Your task to perform on an android device: Show the shopping cart on bestbuy. Search for "razer blade" on bestbuy, select the first entry, add it to the cart, then select checkout. Image 0: 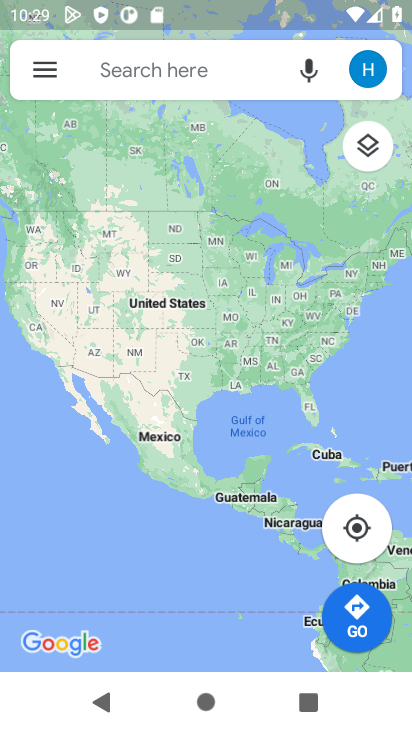
Step 0: press home button
Your task to perform on an android device: Show the shopping cart on bestbuy. Search for "razer blade" on bestbuy, select the first entry, add it to the cart, then select checkout. Image 1: 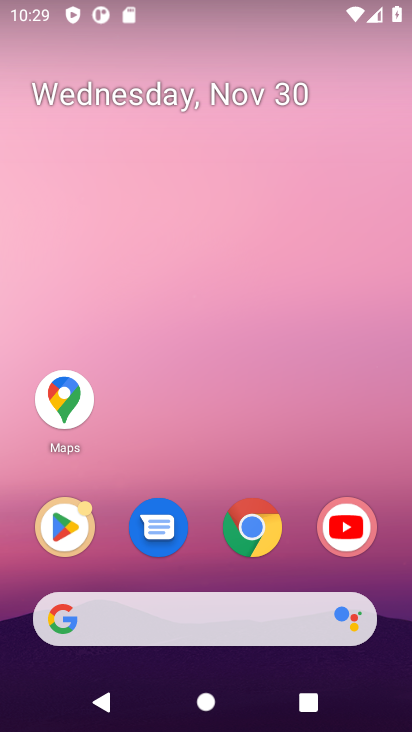
Step 1: click (247, 540)
Your task to perform on an android device: Show the shopping cart on bestbuy. Search for "razer blade" on bestbuy, select the first entry, add it to the cart, then select checkout. Image 2: 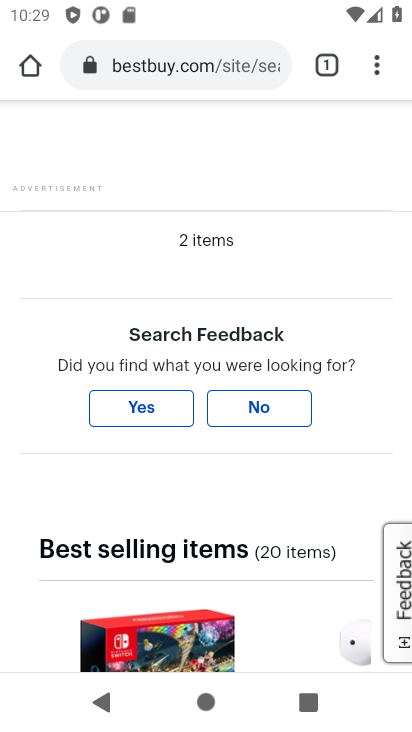
Step 2: drag from (296, 193) to (297, 601)
Your task to perform on an android device: Show the shopping cart on bestbuy. Search for "razer blade" on bestbuy, select the first entry, add it to the cart, then select checkout. Image 3: 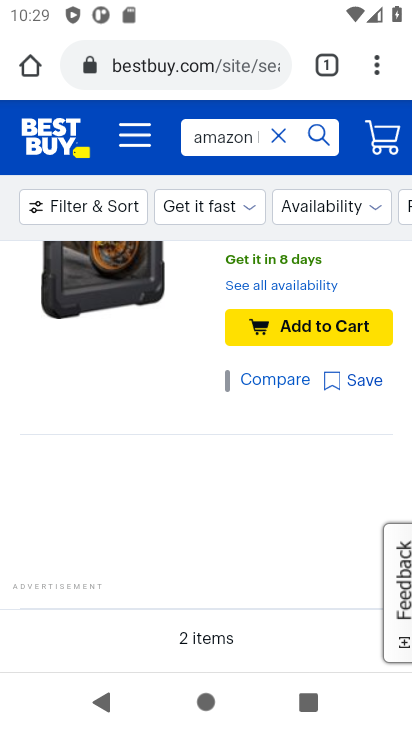
Step 3: click (382, 142)
Your task to perform on an android device: Show the shopping cart on bestbuy. Search for "razer blade" on bestbuy, select the first entry, add it to the cart, then select checkout. Image 4: 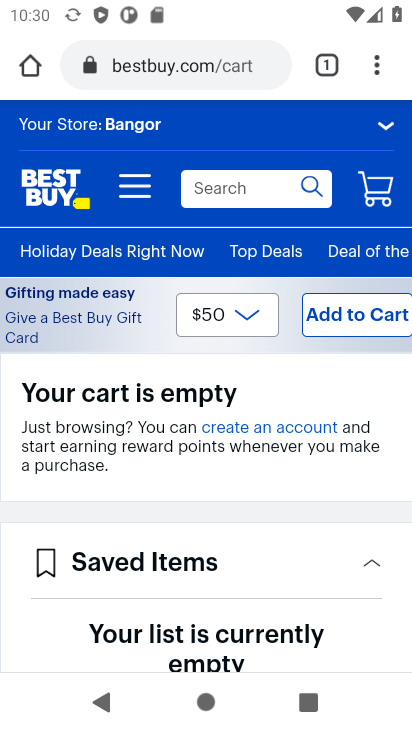
Step 4: click (214, 198)
Your task to perform on an android device: Show the shopping cart on bestbuy. Search for "razer blade" on bestbuy, select the first entry, add it to the cart, then select checkout. Image 5: 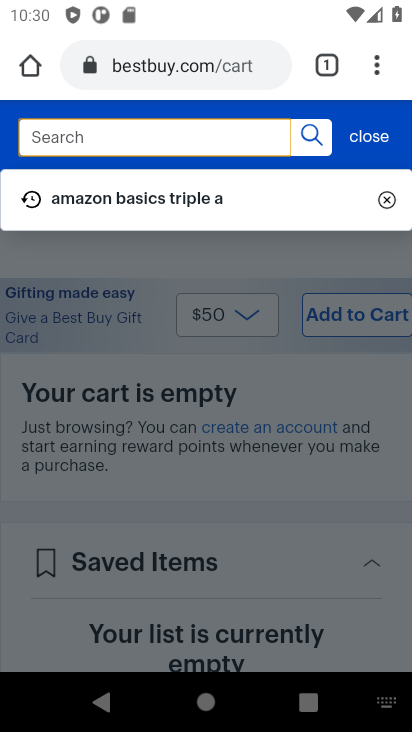
Step 5: type "razer blade"
Your task to perform on an android device: Show the shopping cart on bestbuy. Search for "razer blade" on bestbuy, select the first entry, add it to the cart, then select checkout. Image 6: 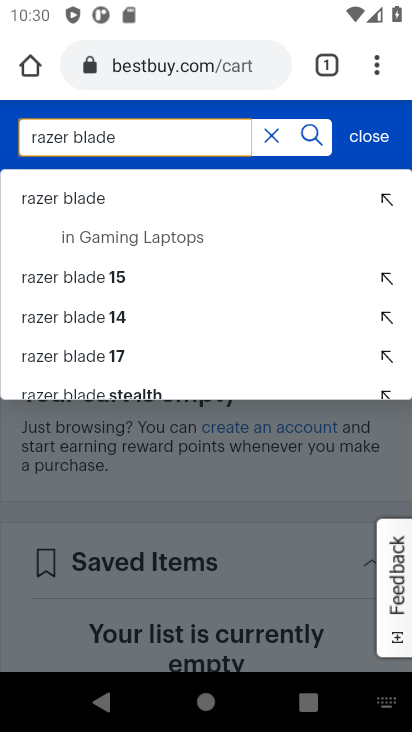
Step 6: click (74, 205)
Your task to perform on an android device: Show the shopping cart on bestbuy. Search for "razer blade" on bestbuy, select the first entry, add it to the cart, then select checkout. Image 7: 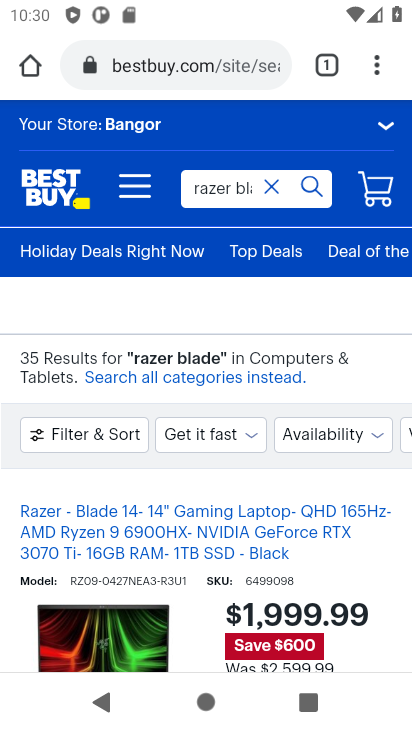
Step 7: drag from (235, 485) to (212, 181)
Your task to perform on an android device: Show the shopping cart on bestbuy. Search for "razer blade" on bestbuy, select the first entry, add it to the cart, then select checkout. Image 8: 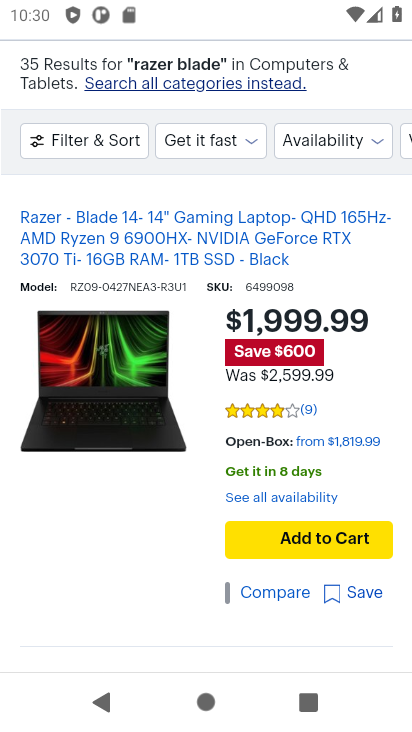
Step 8: click (316, 541)
Your task to perform on an android device: Show the shopping cart on bestbuy. Search for "razer blade" on bestbuy, select the first entry, add it to the cart, then select checkout. Image 9: 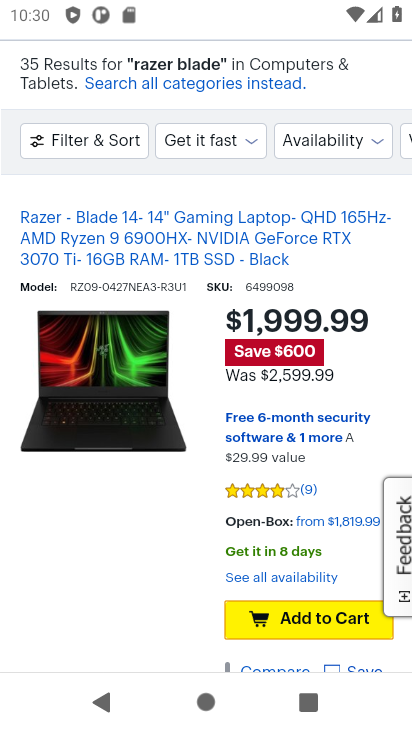
Step 9: click (309, 623)
Your task to perform on an android device: Show the shopping cart on bestbuy. Search for "razer blade" on bestbuy, select the first entry, add it to the cart, then select checkout. Image 10: 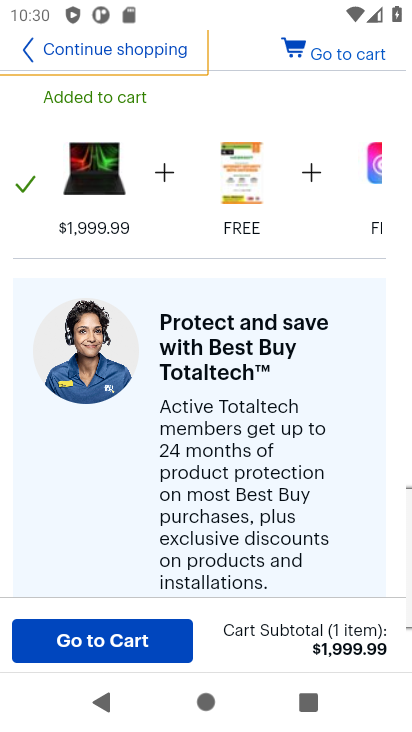
Step 10: click (335, 55)
Your task to perform on an android device: Show the shopping cart on bestbuy. Search for "razer blade" on bestbuy, select the first entry, add it to the cart, then select checkout. Image 11: 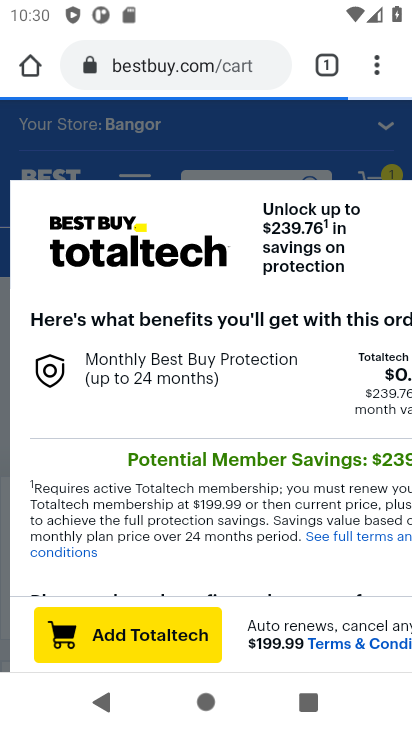
Step 11: click (228, 584)
Your task to perform on an android device: Show the shopping cart on bestbuy. Search for "razer blade" on bestbuy, select the first entry, add it to the cart, then select checkout. Image 12: 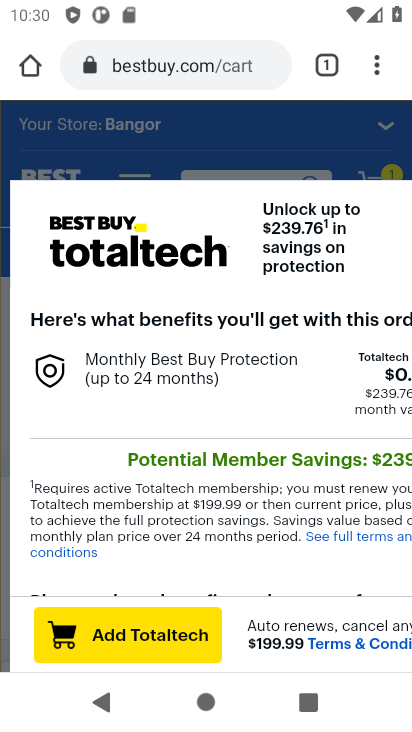
Step 12: click (354, 153)
Your task to perform on an android device: Show the shopping cart on bestbuy. Search for "razer blade" on bestbuy, select the first entry, add it to the cart, then select checkout. Image 13: 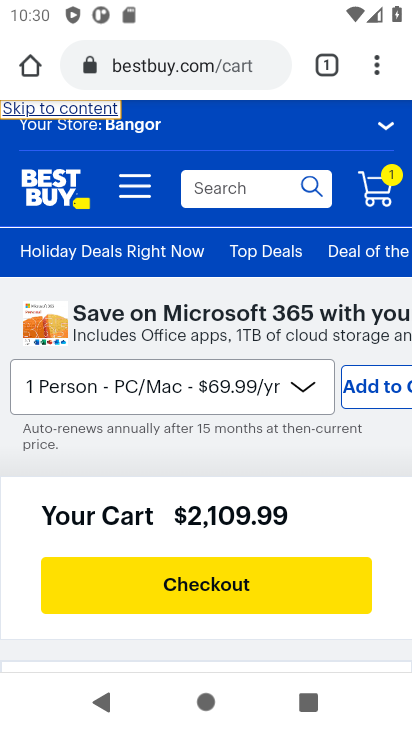
Step 13: click (208, 588)
Your task to perform on an android device: Show the shopping cart on bestbuy. Search for "razer blade" on bestbuy, select the first entry, add it to the cart, then select checkout. Image 14: 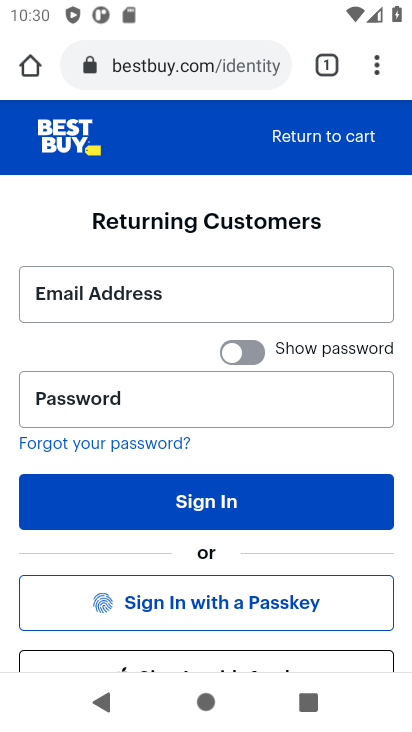
Step 14: task complete